Your task to perform on an android device: toggle location history Image 0: 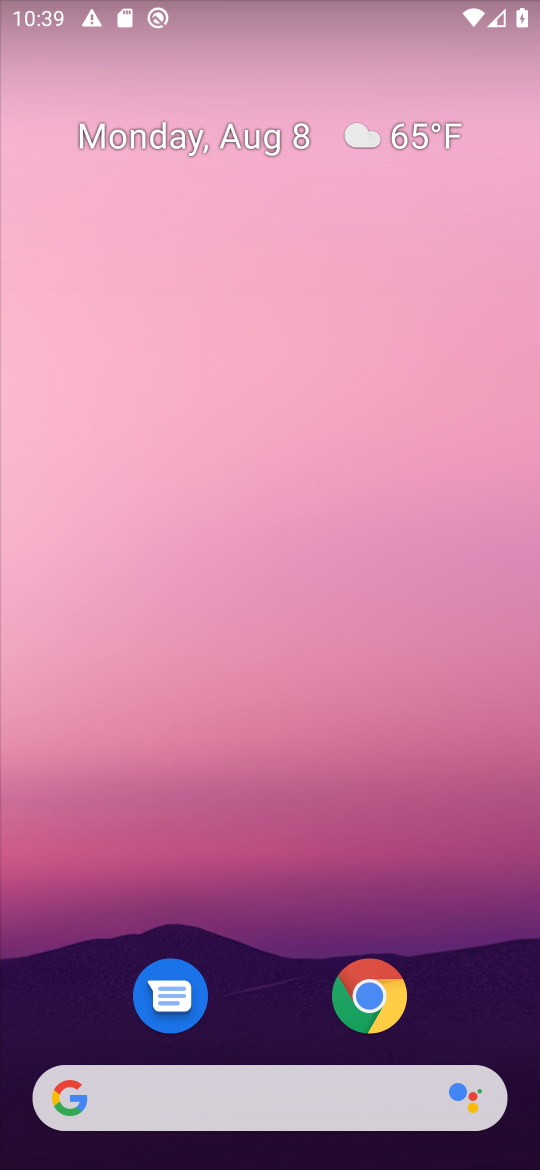
Step 0: drag from (288, 1000) to (240, 325)
Your task to perform on an android device: toggle location history Image 1: 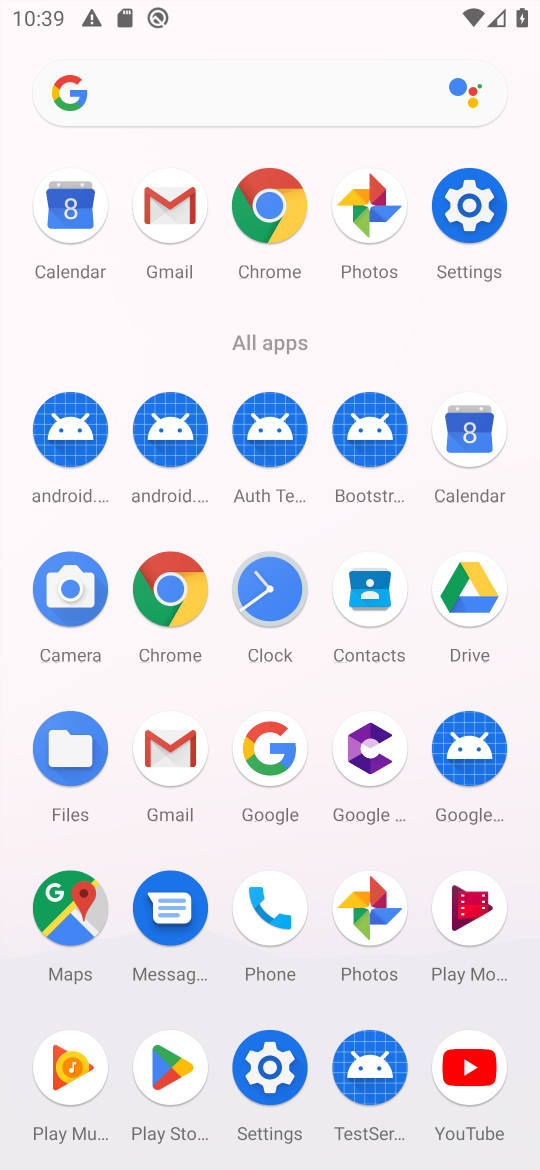
Step 1: click (467, 244)
Your task to perform on an android device: toggle location history Image 2: 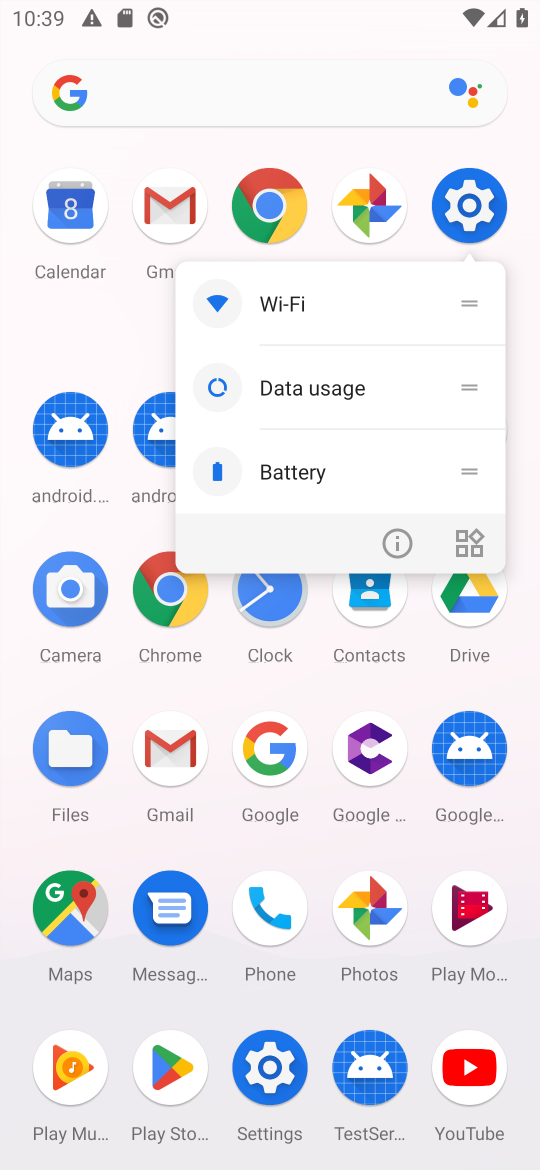
Step 2: click (467, 244)
Your task to perform on an android device: toggle location history Image 3: 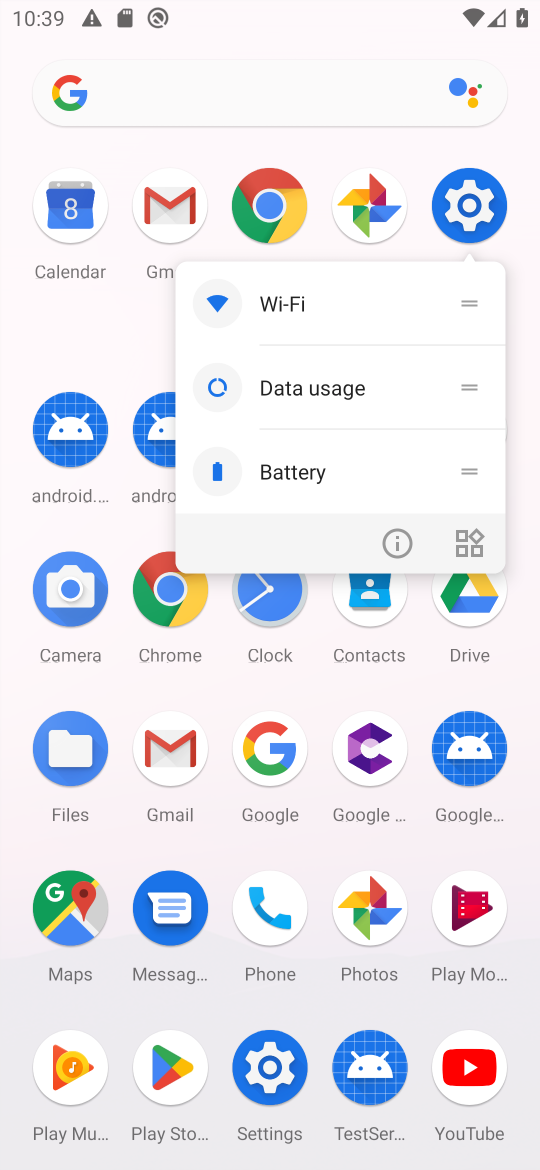
Step 3: click (484, 225)
Your task to perform on an android device: toggle location history Image 4: 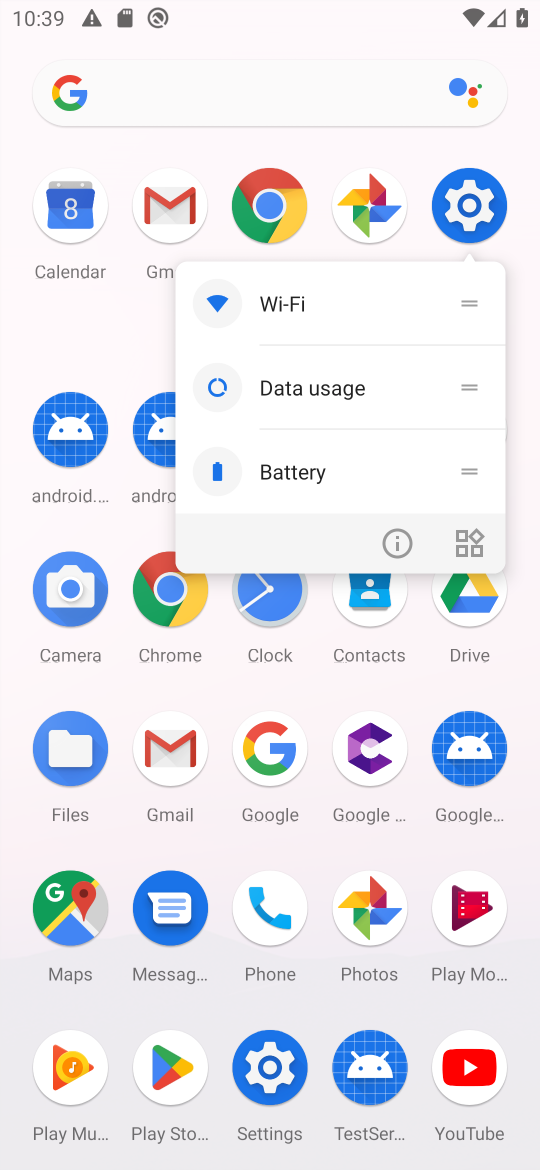
Step 4: click (473, 216)
Your task to perform on an android device: toggle location history Image 5: 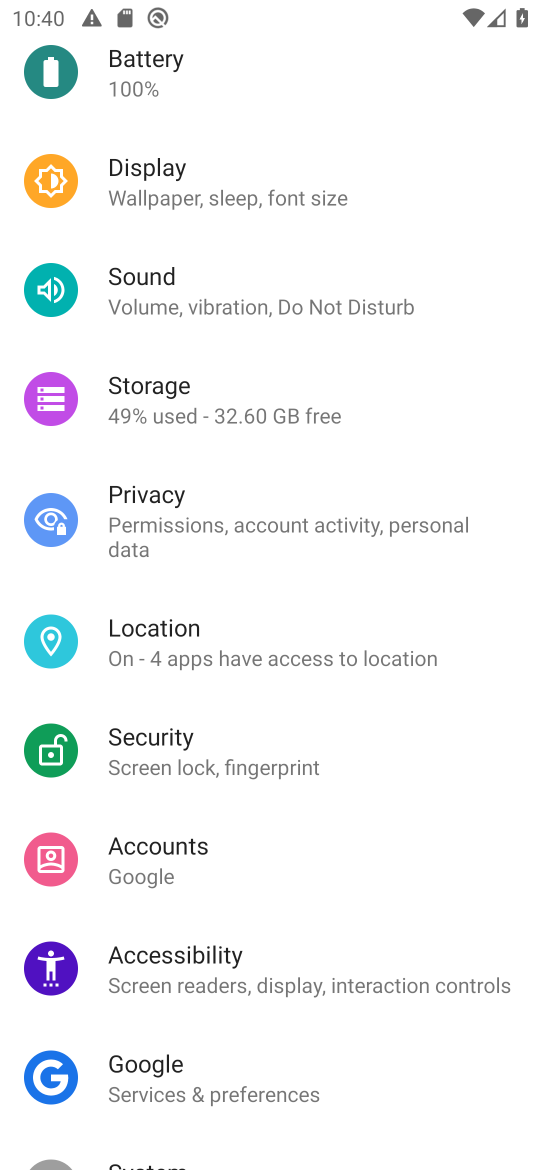
Step 5: click (181, 668)
Your task to perform on an android device: toggle location history Image 6: 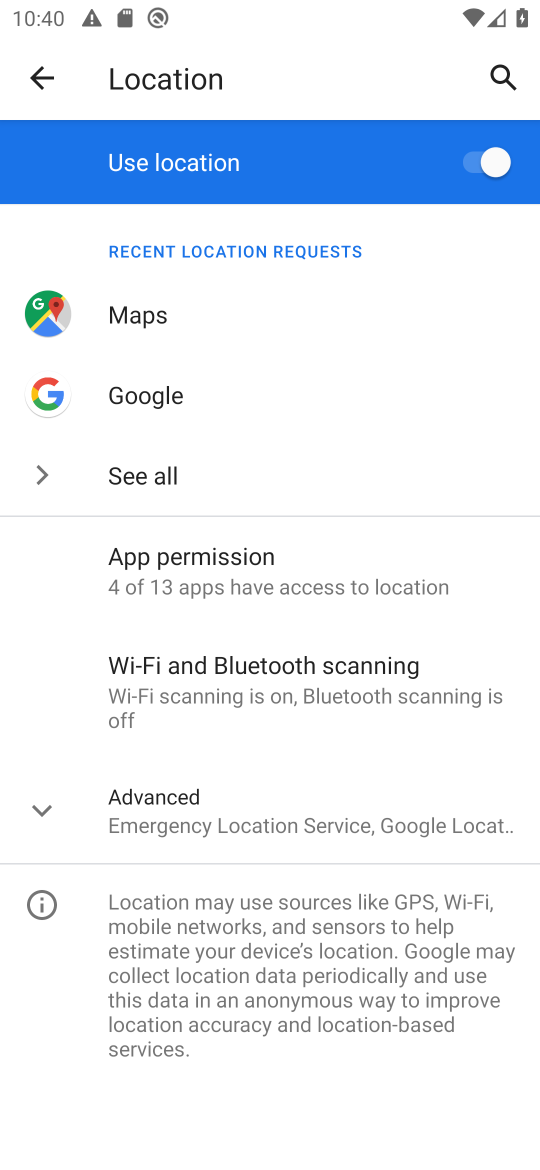
Step 6: click (175, 818)
Your task to perform on an android device: toggle location history Image 7: 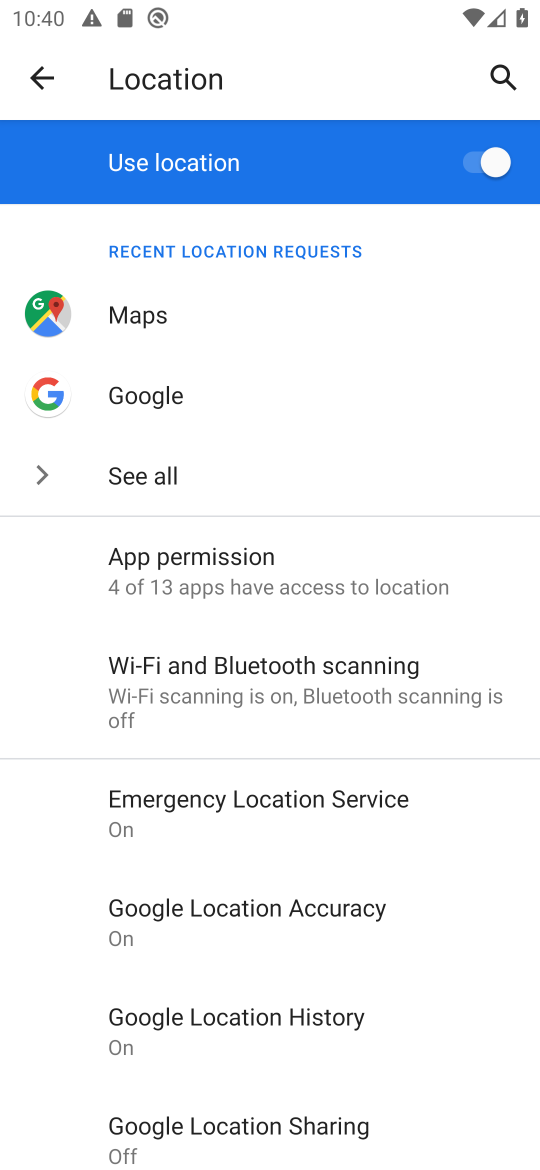
Step 7: click (250, 1041)
Your task to perform on an android device: toggle location history Image 8: 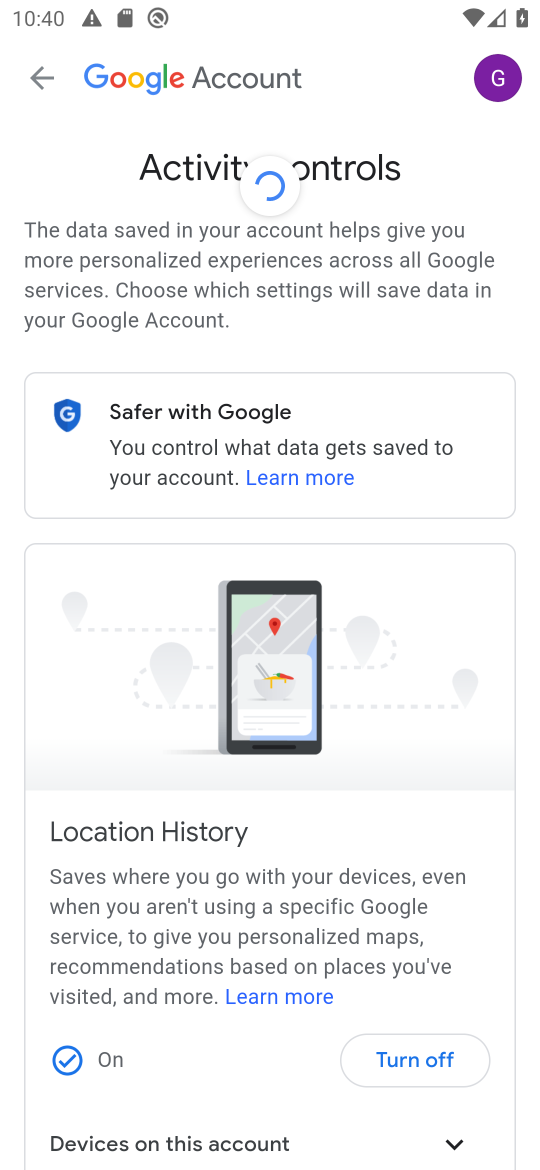
Step 8: click (422, 1068)
Your task to perform on an android device: toggle location history Image 9: 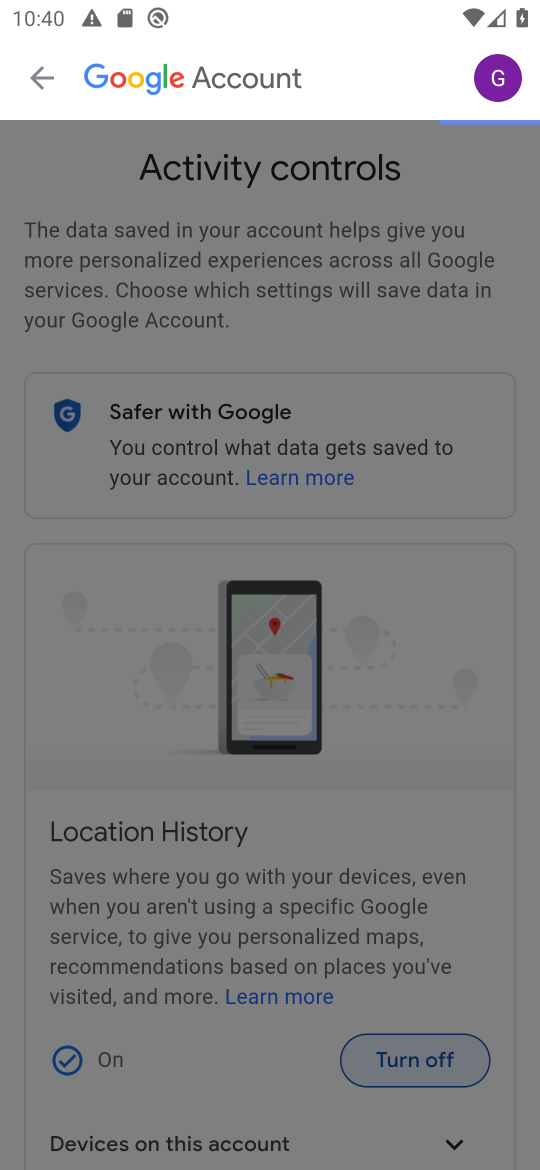
Step 9: click (417, 1043)
Your task to perform on an android device: toggle location history Image 10: 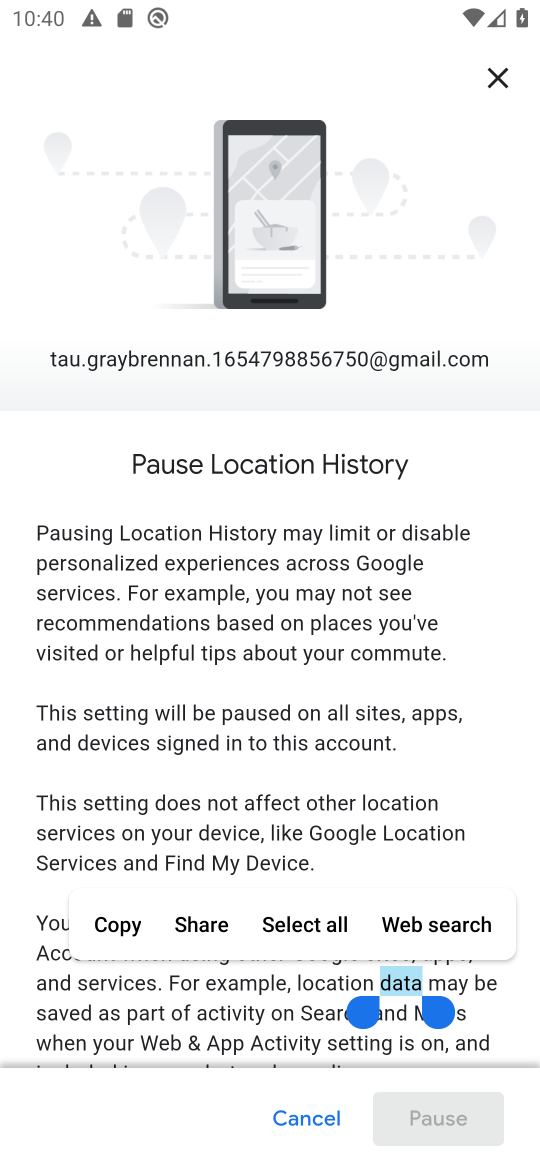
Step 10: drag from (498, 882) to (412, 263)
Your task to perform on an android device: toggle location history Image 11: 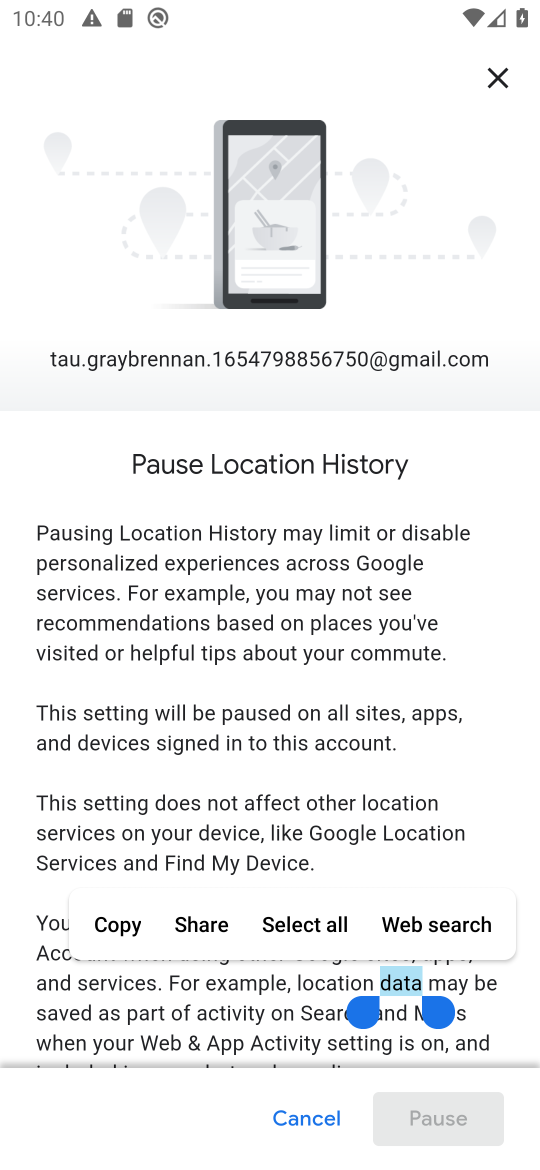
Step 11: click (477, 879)
Your task to perform on an android device: toggle location history Image 12: 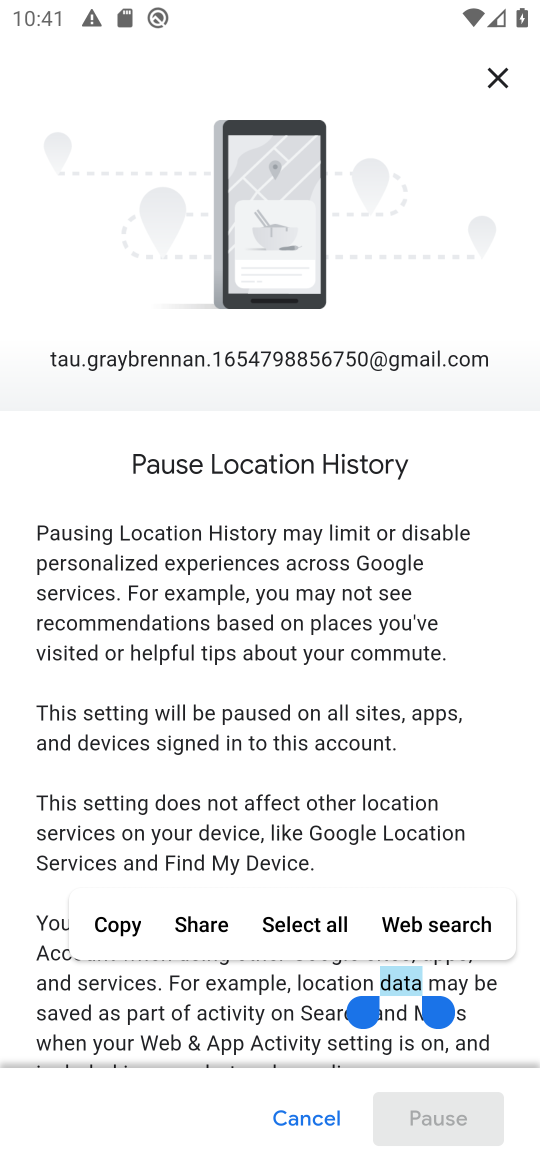
Step 12: click (435, 468)
Your task to perform on an android device: toggle location history Image 13: 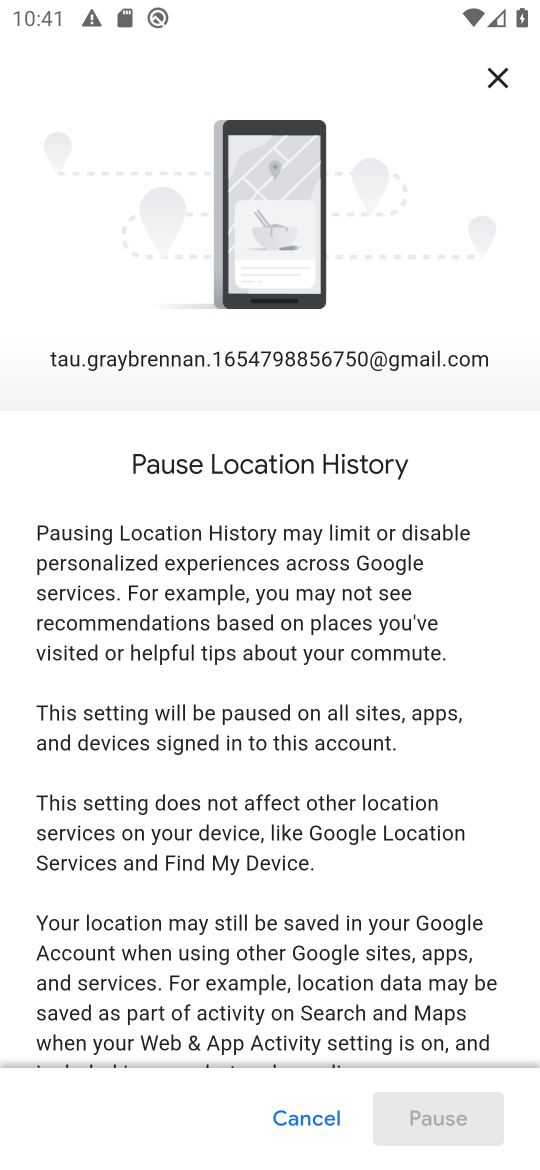
Step 13: drag from (367, 881) to (289, 287)
Your task to perform on an android device: toggle location history Image 14: 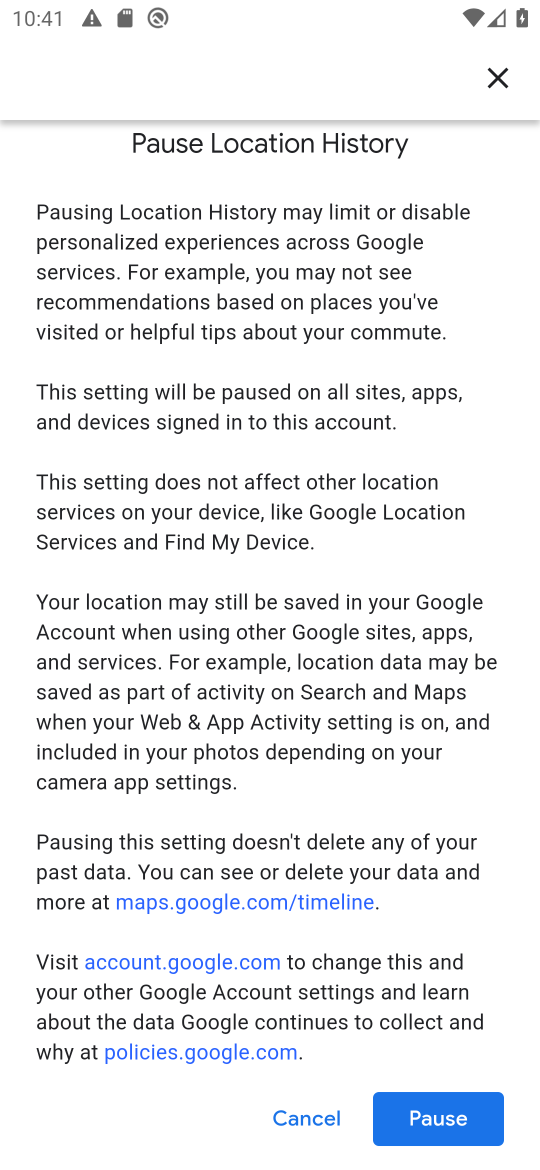
Step 14: click (419, 1143)
Your task to perform on an android device: toggle location history Image 15: 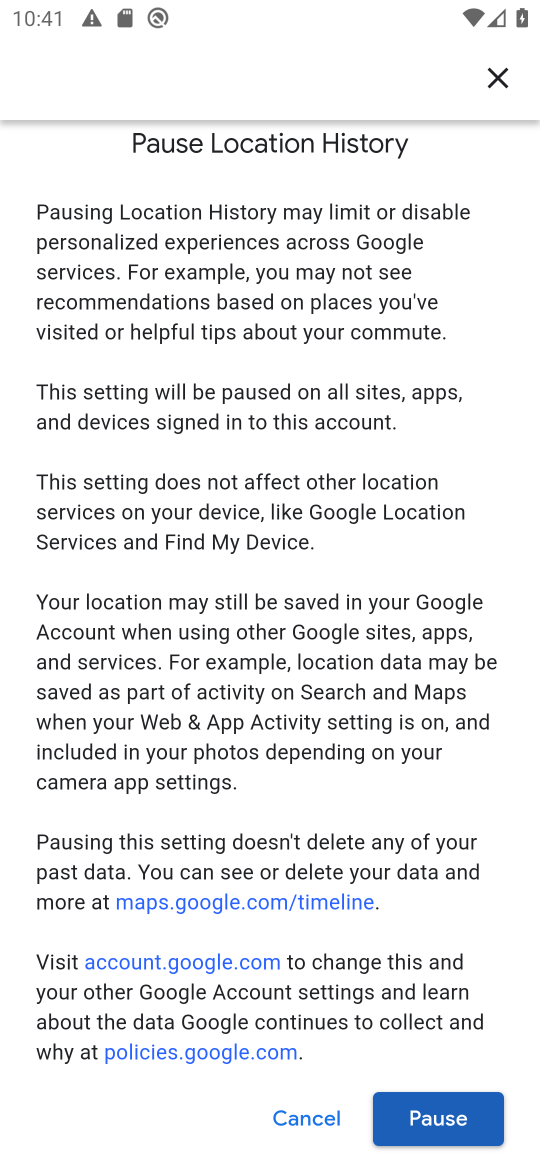
Step 15: click (458, 1107)
Your task to perform on an android device: toggle location history Image 16: 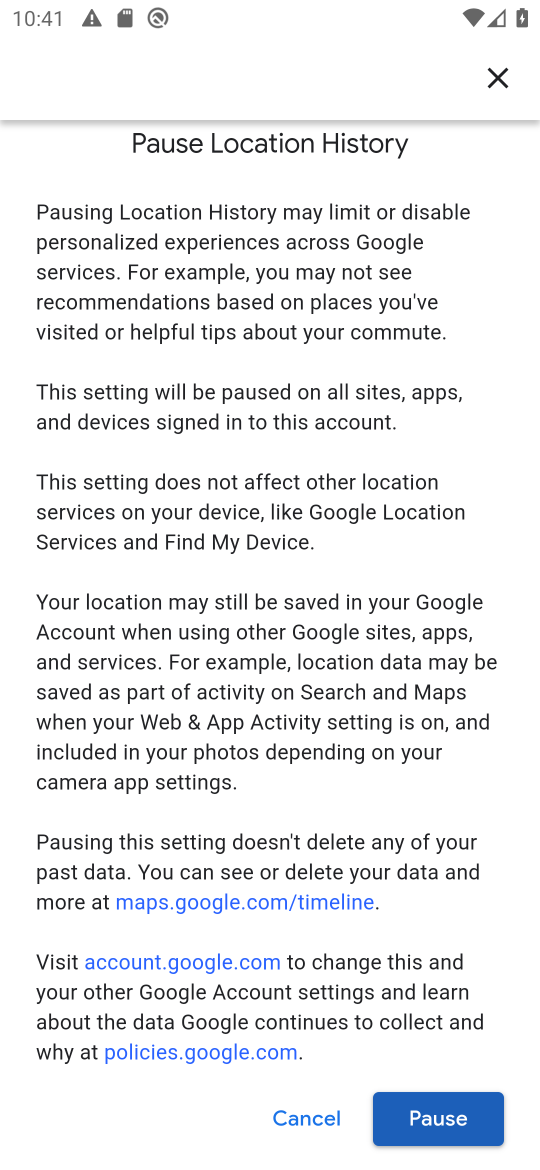
Step 16: drag from (359, 1057) to (217, 84)
Your task to perform on an android device: toggle location history Image 17: 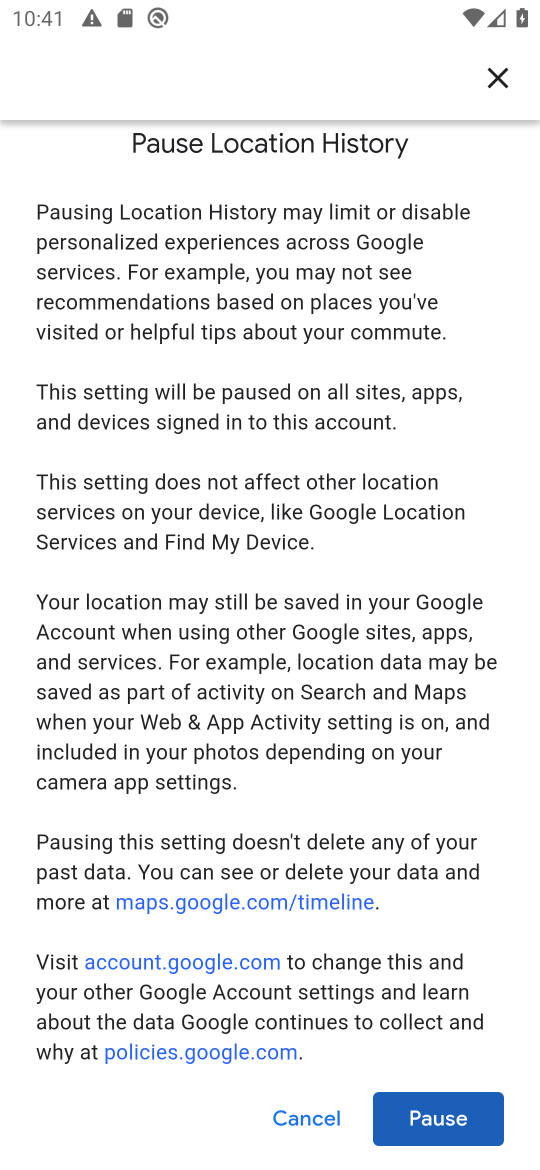
Step 17: click (443, 1102)
Your task to perform on an android device: toggle location history Image 18: 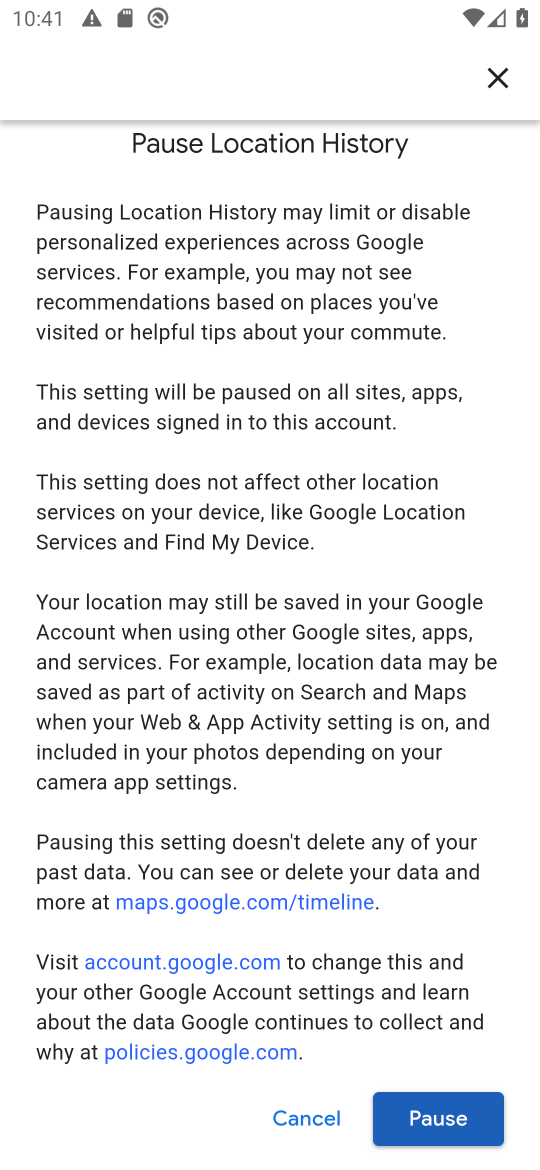
Step 18: click (468, 1115)
Your task to perform on an android device: toggle location history Image 19: 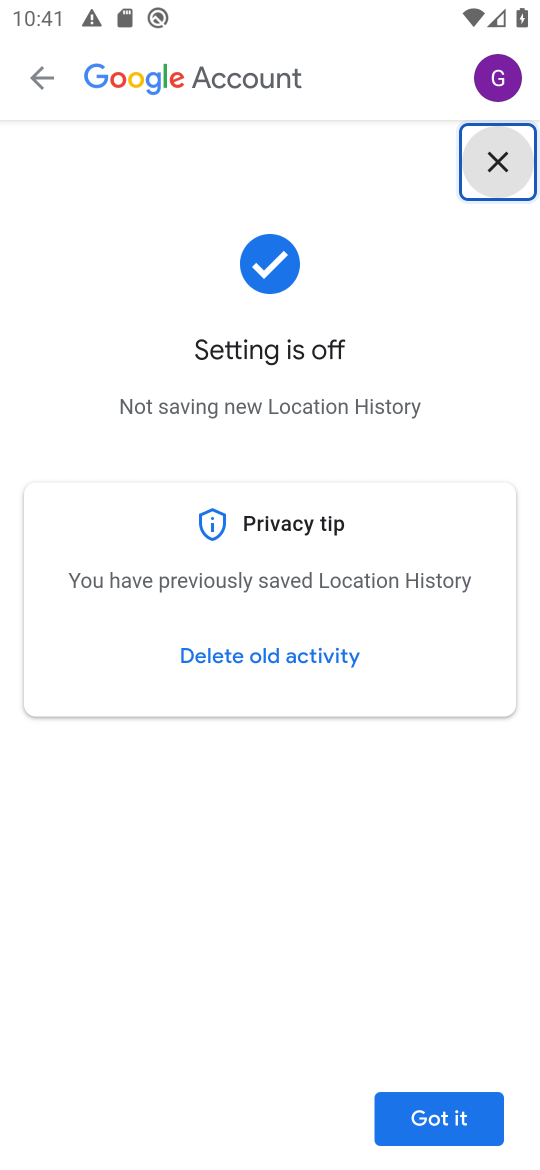
Step 19: click (429, 1132)
Your task to perform on an android device: toggle location history Image 20: 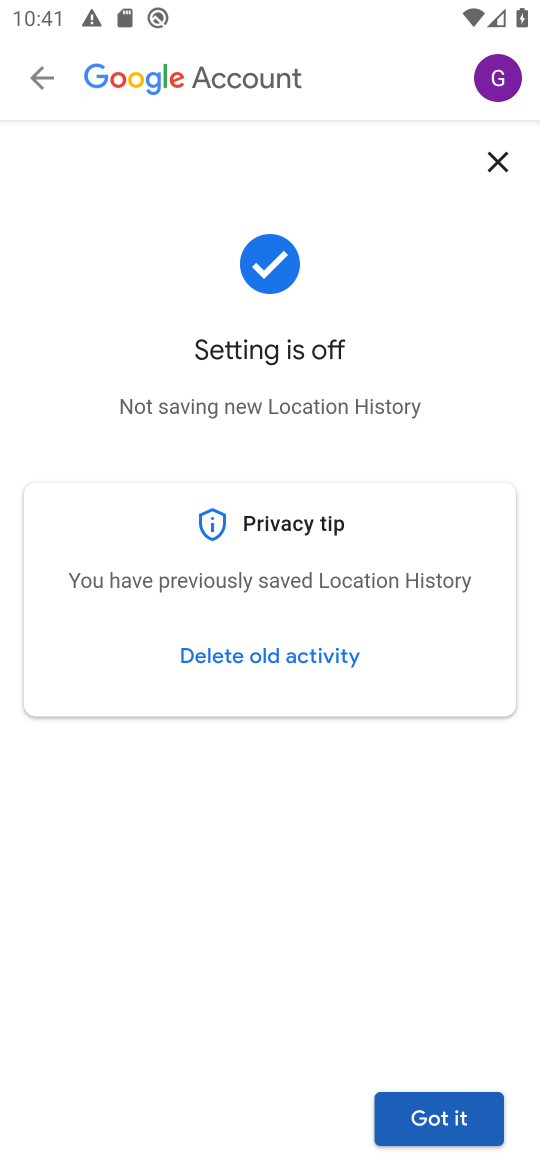
Step 20: task complete